Your task to perform on an android device: Open the map Image 0: 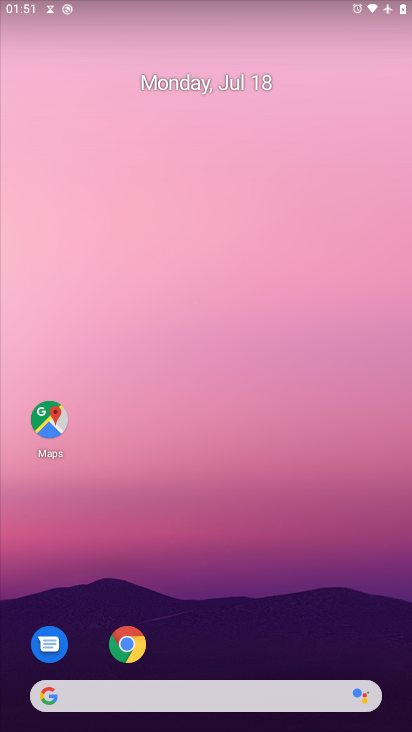
Step 0: drag from (250, 645) to (168, 4)
Your task to perform on an android device: Open the map Image 1: 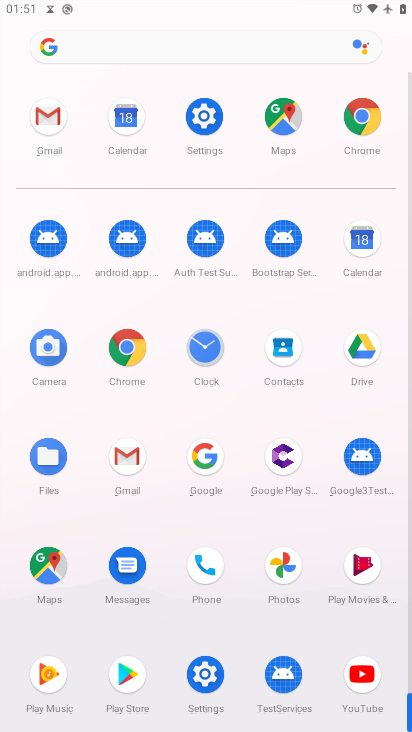
Step 1: click (284, 119)
Your task to perform on an android device: Open the map Image 2: 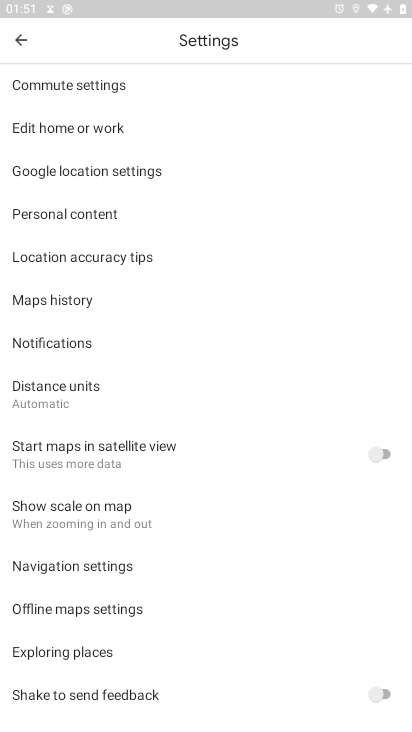
Step 2: click (19, 38)
Your task to perform on an android device: Open the map Image 3: 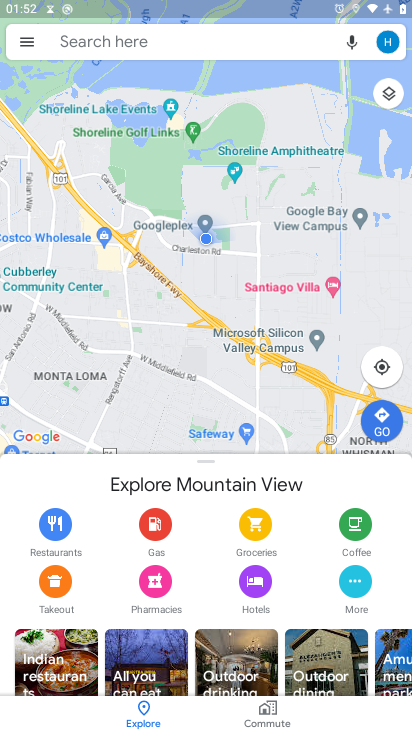
Step 3: task complete